Your task to perform on an android device: set the stopwatch Image 0: 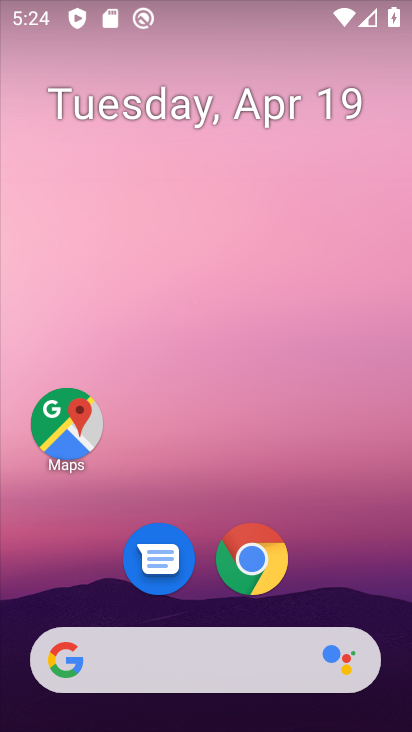
Step 0: drag from (326, 585) to (243, 7)
Your task to perform on an android device: set the stopwatch Image 1: 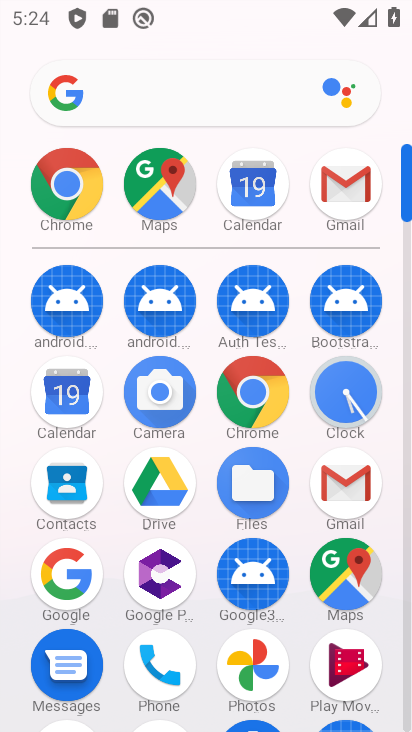
Step 1: click (344, 417)
Your task to perform on an android device: set the stopwatch Image 2: 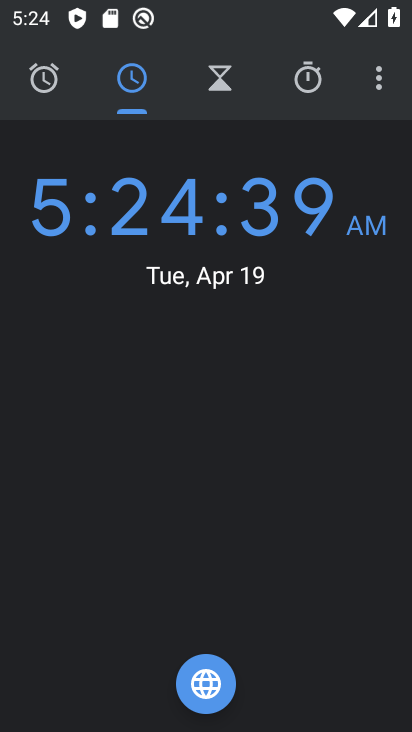
Step 2: click (305, 82)
Your task to perform on an android device: set the stopwatch Image 3: 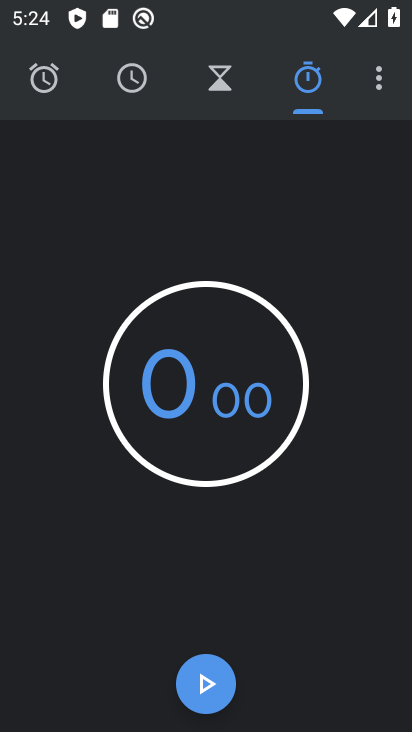
Step 3: task complete